Your task to perform on an android device: What's on my calendar tomorrow? Image 0: 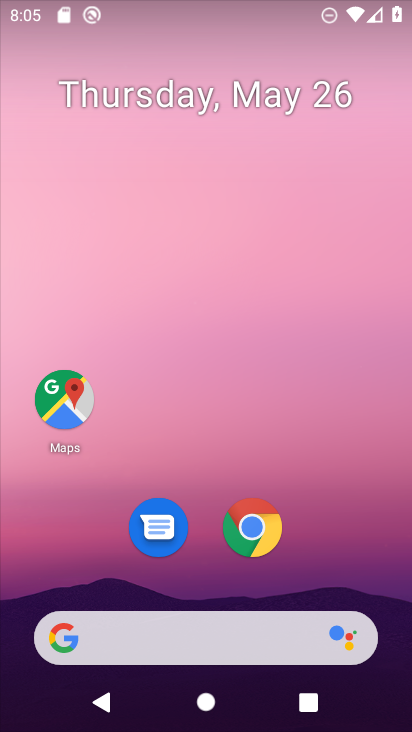
Step 0: press home button
Your task to perform on an android device: What's on my calendar tomorrow? Image 1: 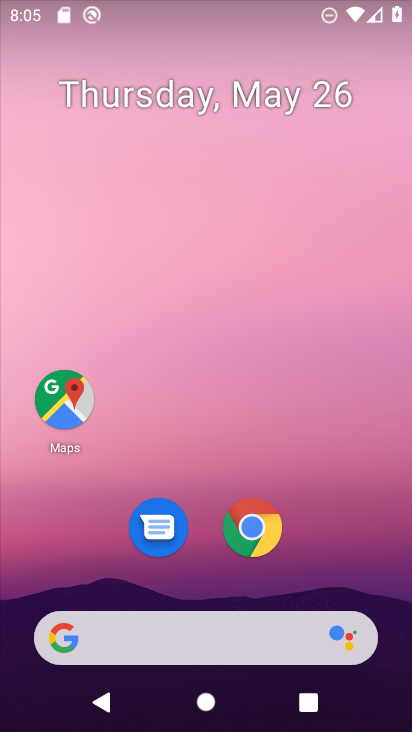
Step 1: drag from (8, 638) to (236, 77)
Your task to perform on an android device: What's on my calendar tomorrow? Image 2: 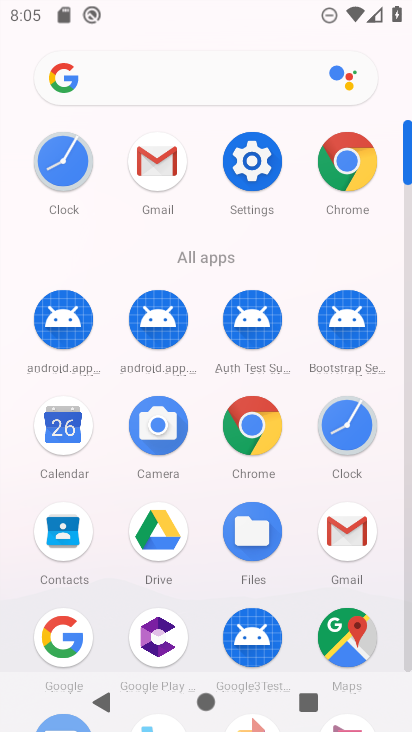
Step 2: click (49, 433)
Your task to perform on an android device: What's on my calendar tomorrow? Image 3: 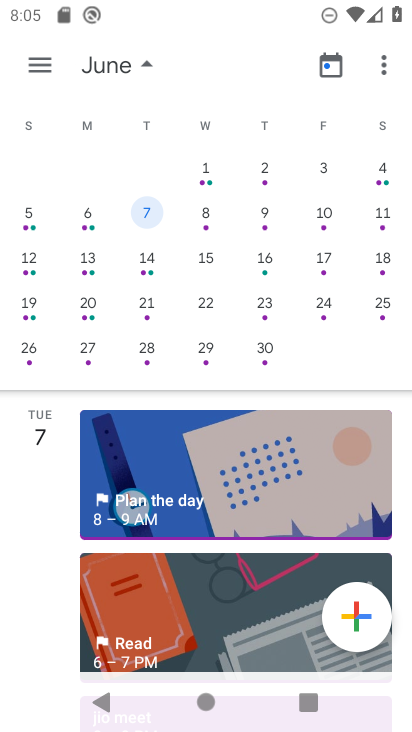
Step 3: drag from (8, 112) to (409, 194)
Your task to perform on an android device: What's on my calendar tomorrow? Image 4: 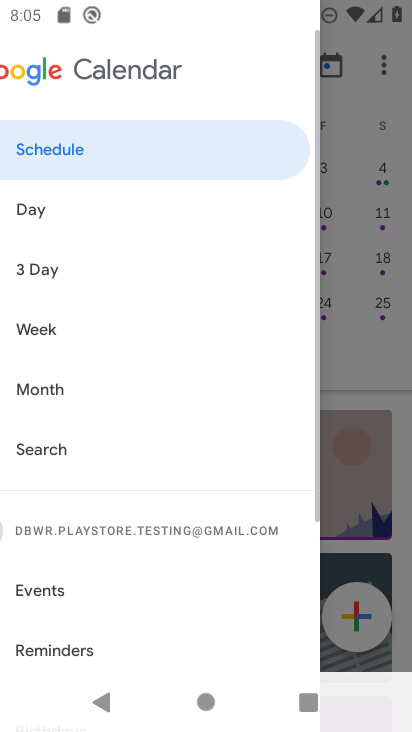
Step 4: press back button
Your task to perform on an android device: What's on my calendar tomorrow? Image 5: 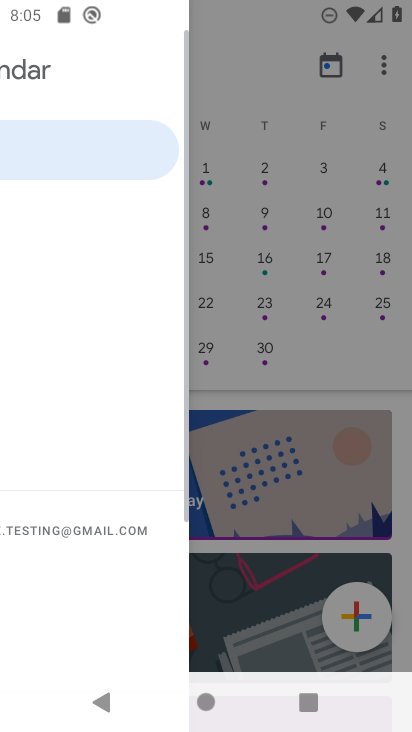
Step 5: drag from (409, 194) to (343, 279)
Your task to perform on an android device: What's on my calendar tomorrow? Image 6: 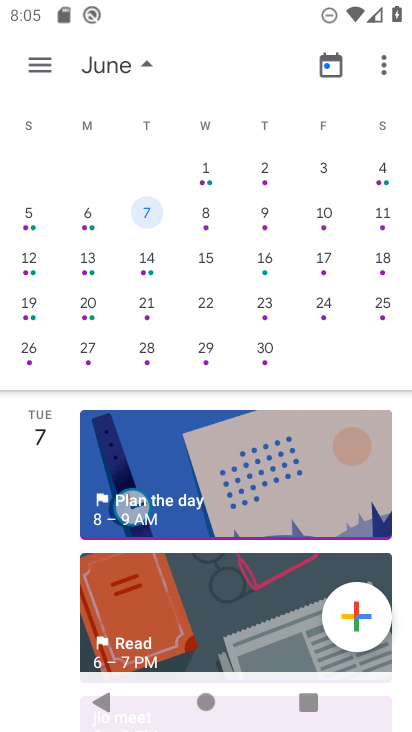
Step 6: drag from (70, 289) to (307, 304)
Your task to perform on an android device: What's on my calendar tomorrow? Image 7: 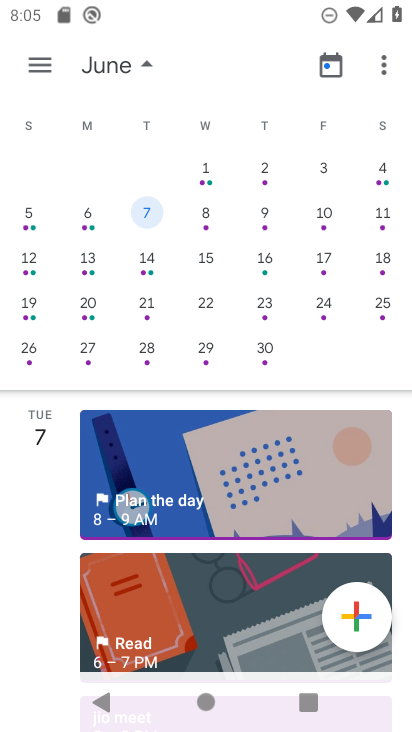
Step 7: drag from (10, 350) to (404, 311)
Your task to perform on an android device: What's on my calendar tomorrow? Image 8: 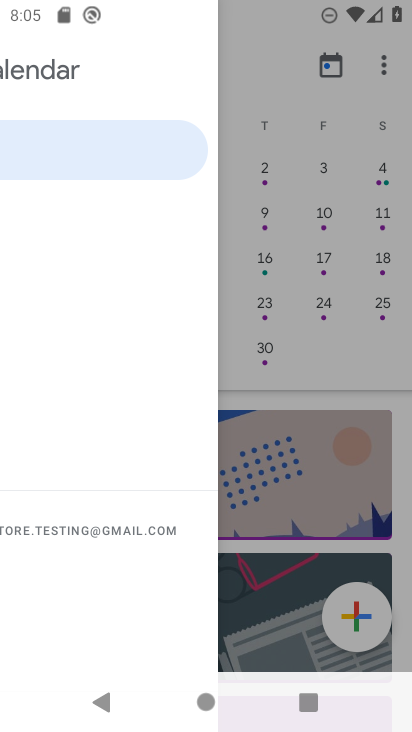
Step 8: press back button
Your task to perform on an android device: What's on my calendar tomorrow? Image 9: 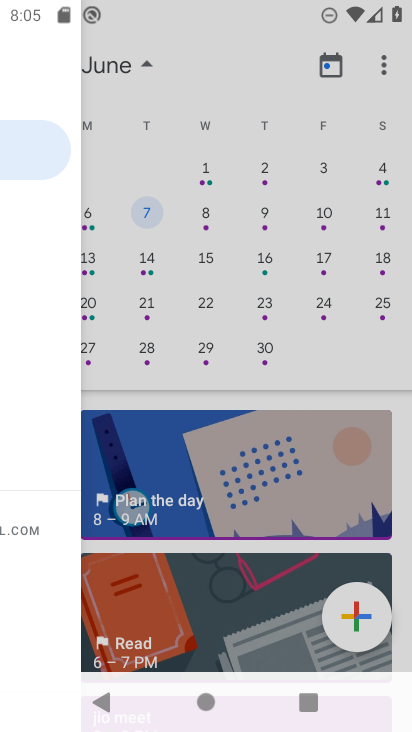
Step 9: drag from (404, 311) to (345, 237)
Your task to perform on an android device: What's on my calendar tomorrow? Image 10: 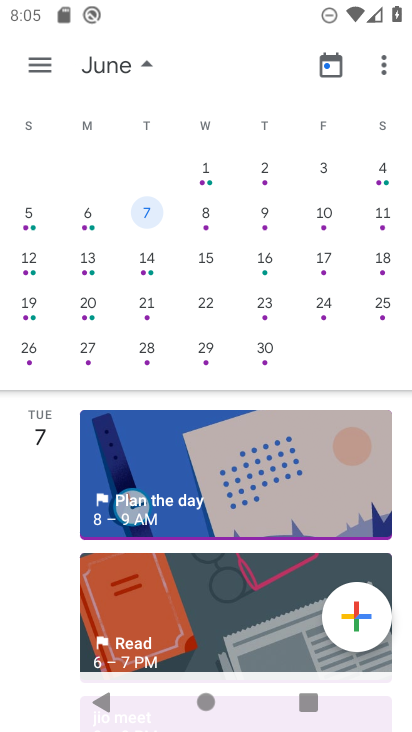
Step 10: drag from (49, 248) to (386, 243)
Your task to perform on an android device: What's on my calendar tomorrow? Image 11: 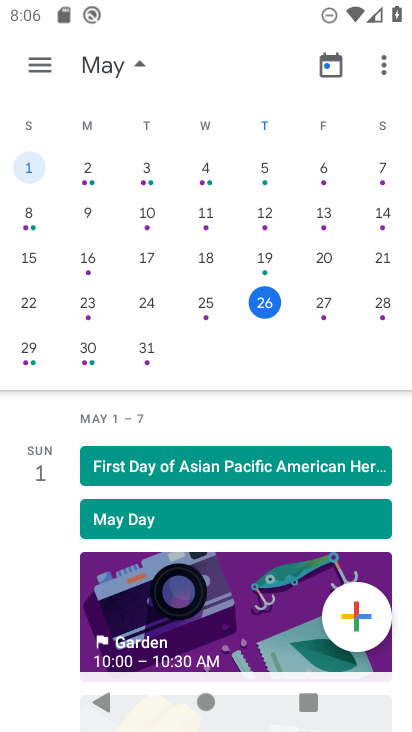
Step 11: click (6, 280)
Your task to perform on an android device: What's on my calendar tomorrow? Image 12: 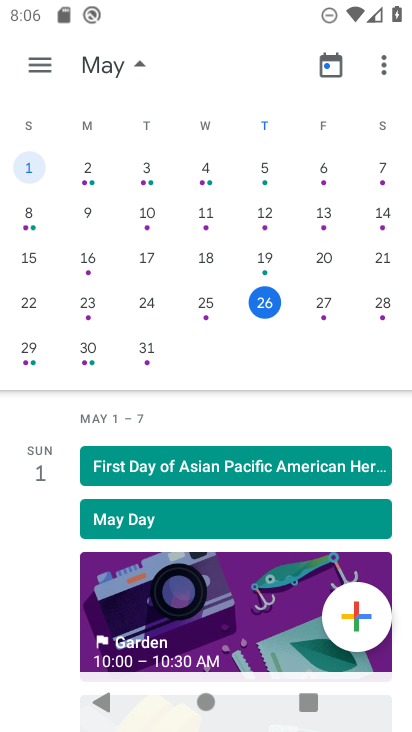
Step 12: click (385, 301)
Your task to perform on an android device: What's on my calendar tomorrow? Image 13: 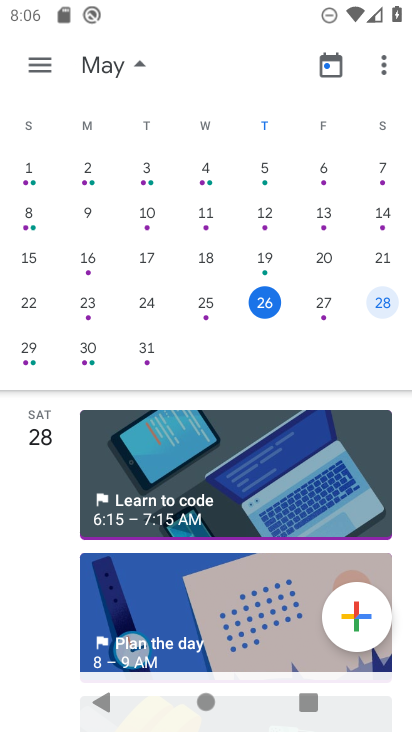
Step 13: task complete